Your task to perform on an android device: Open settings on Google Maps Image 0: 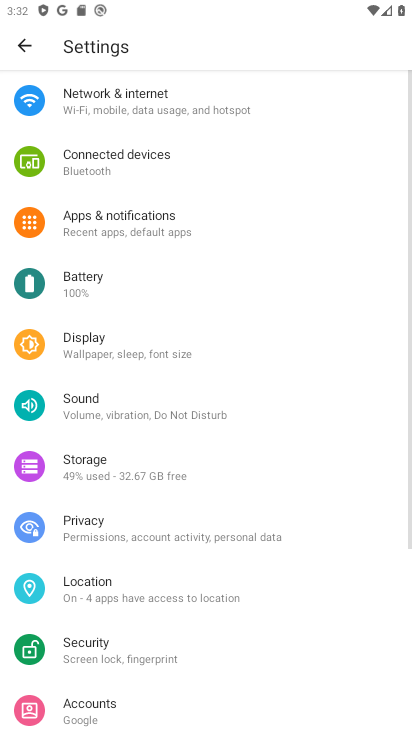
Step 0: press home button
Your task to perform on an android device: Open settings on Google Maps Image 1: 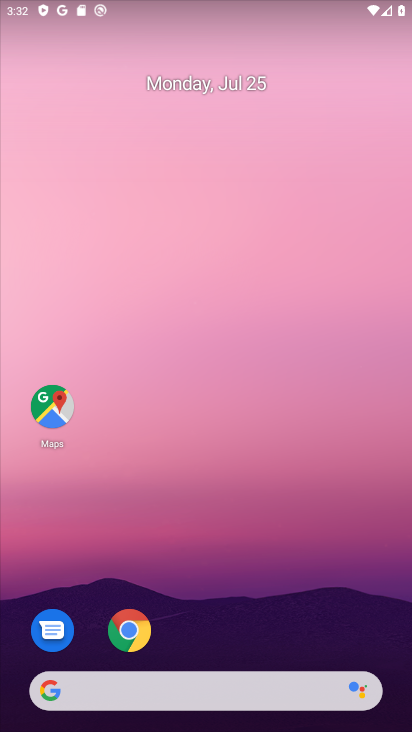
Step 1: click (50, 405)
Your task to perform on an android device: Open settings on Google Maps Image 2: 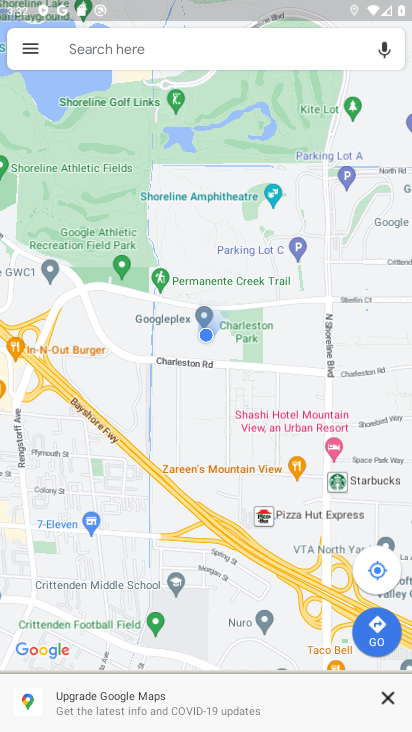
Step 2: click (35, 50)
Your task to perform on an android device: Open settings on Google Maps Image 3: 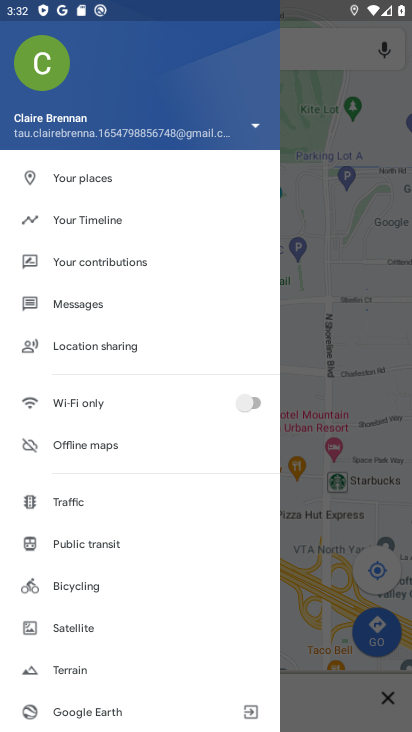
Step 3: drag from (65, 524) to (108, 294)
Your task to perform on an android device: Open settings on Google Maps Image 4: 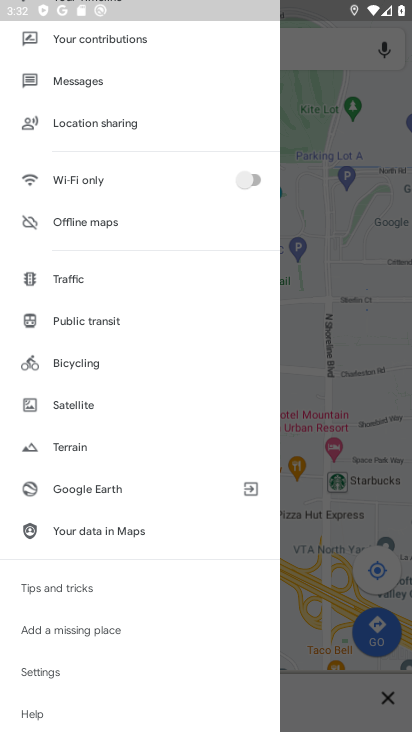
Step 4: click (40, 671)
Your task to perform on an android device: Open settings on Google Maps Image 5: 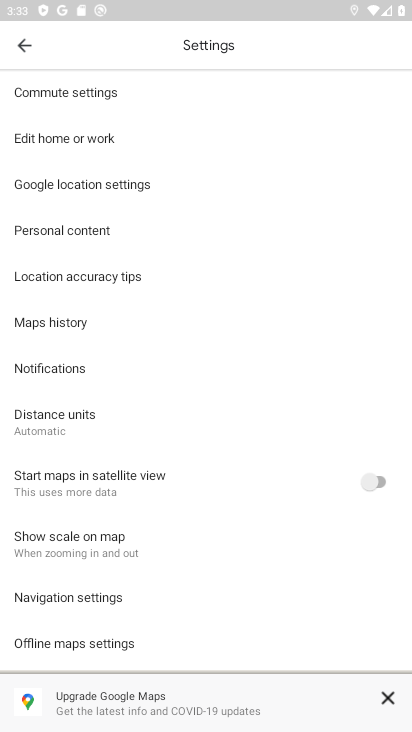
Step 5: task complete